Your task to perform on an android device: show emergency info Image 0: 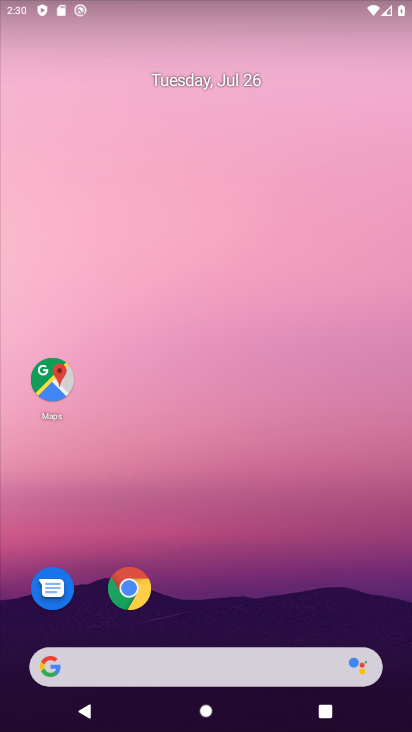
Step 0: drag from (336, 517) to (311, 140)
Your task to perform on an android device: show emergency info Image 1: 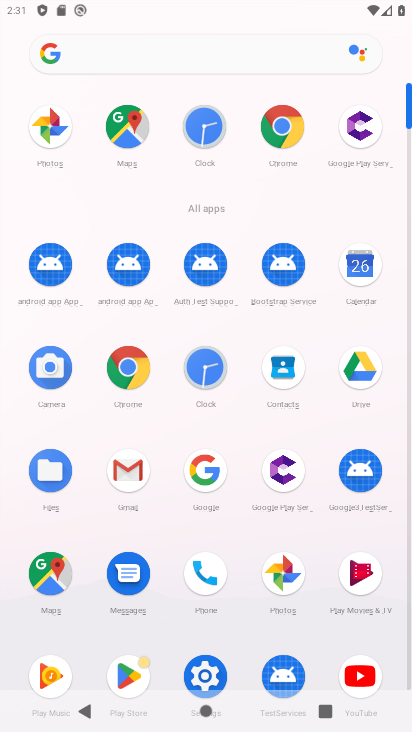
Step 1: click (210, 677)
Your task to perform on an android device: show emergency info Image 2: 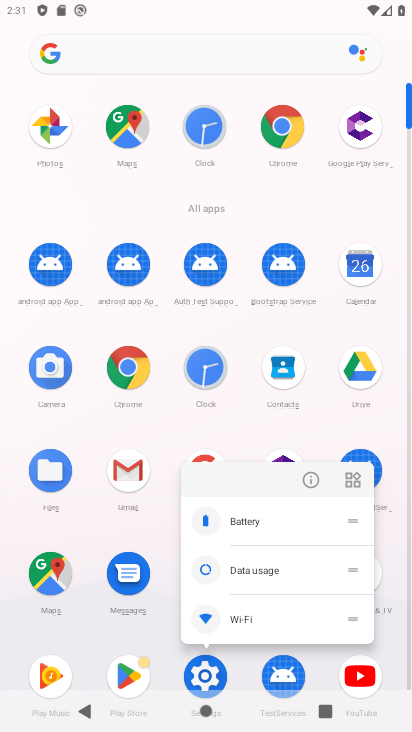
Step 2: click (210, 677)
Your task to perform on an android device: show emergency info Image 3: 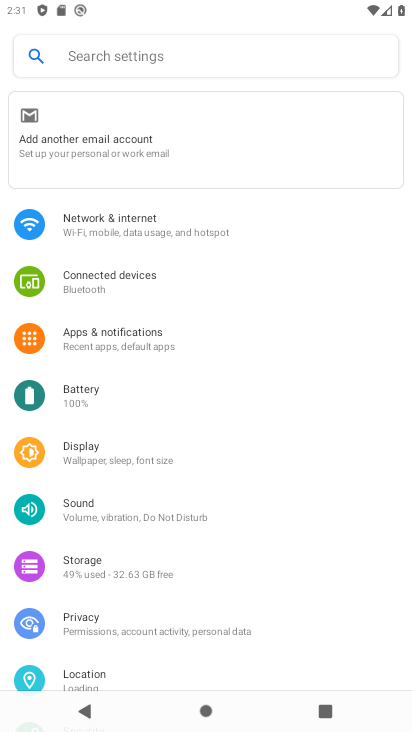
Step 3: drag from (209, 675) to (124, 232)
Your task to perform on an android device: show emergency info Image 4: 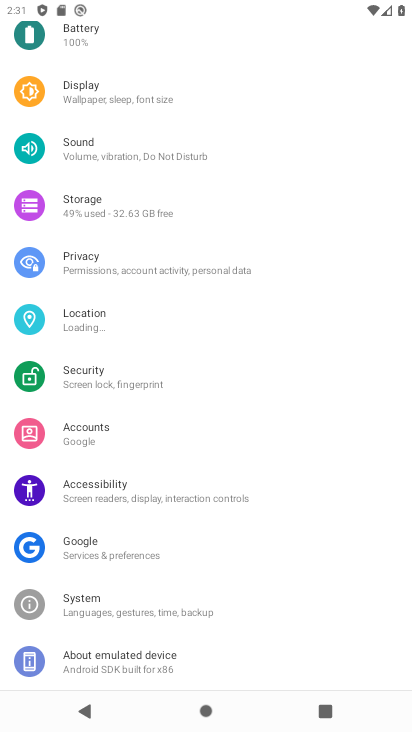
Step 4: drag from (93, 632) to (83, 280)
Your task to perform on an android device: show emergency info Image 5: 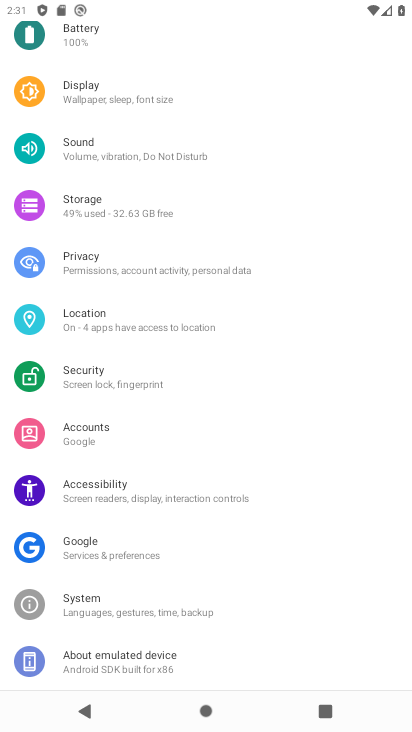
Step 5: click (113, 667)
Your task to perform on an android device: show emergency info Image 6: 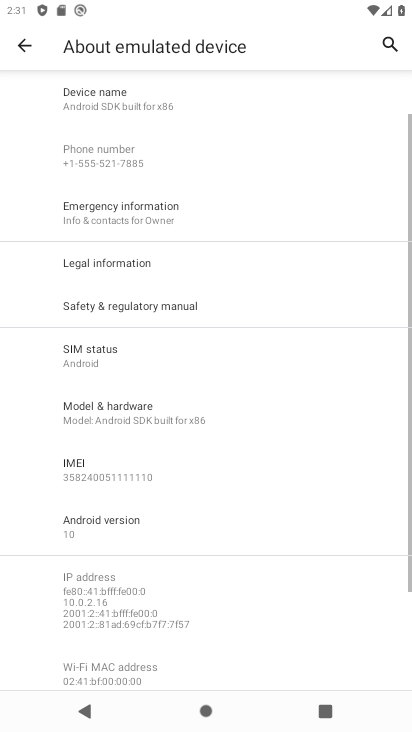
Step 6: click (126, 220)
Your task to perform on an android device: show emergency info Image 7: 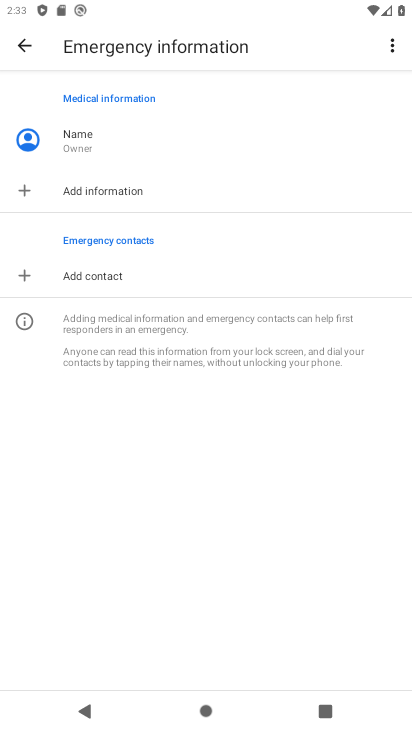
Step 7: task complete